Your task to perform on an android device: turn on showing notifications on the lock screen Image 0: 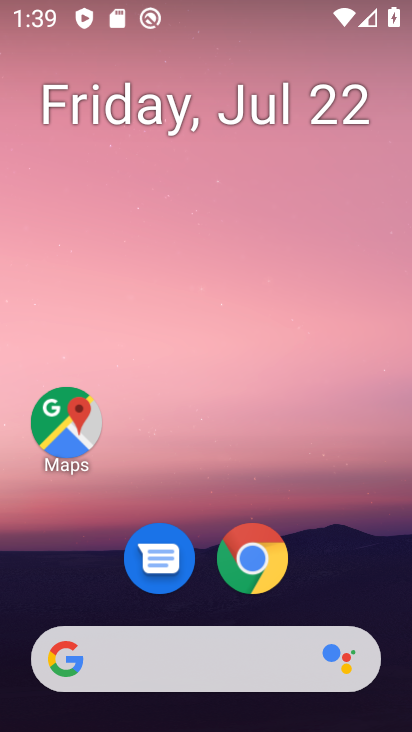
Step 0: drag from (379, 568) to (267, 148)
Your task to perform on an android device: turn on showing notifications on the lock screen Image 1: 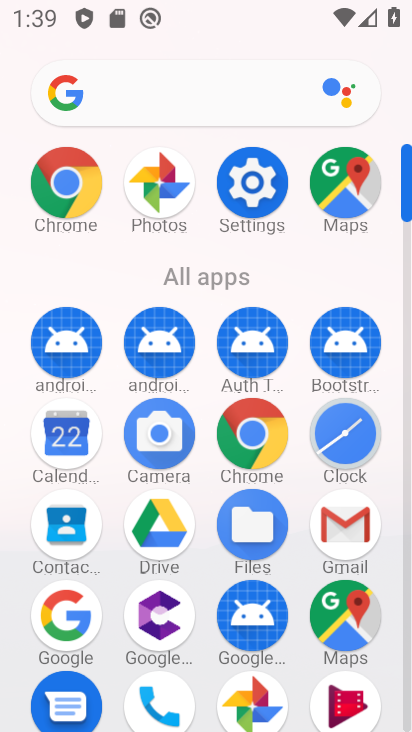
Step 1: click (263, 175)
Your task to perform on an android device: turn on showing notifications on the lock screen Image 2: 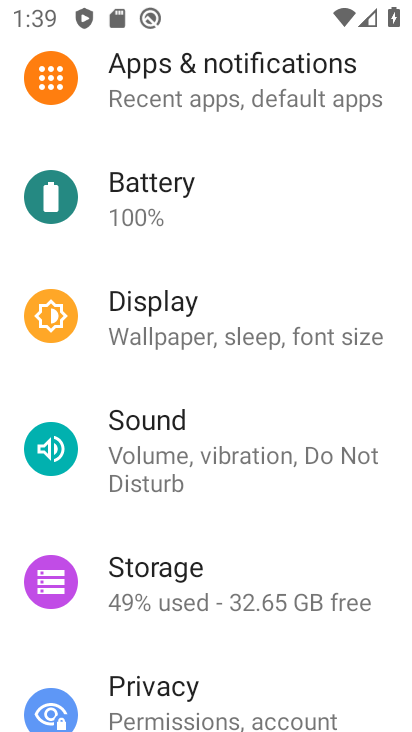
Step 2: click (227, 95)
Your task to perform on an android device: turn on showing notifications on the lock screen Image 3: 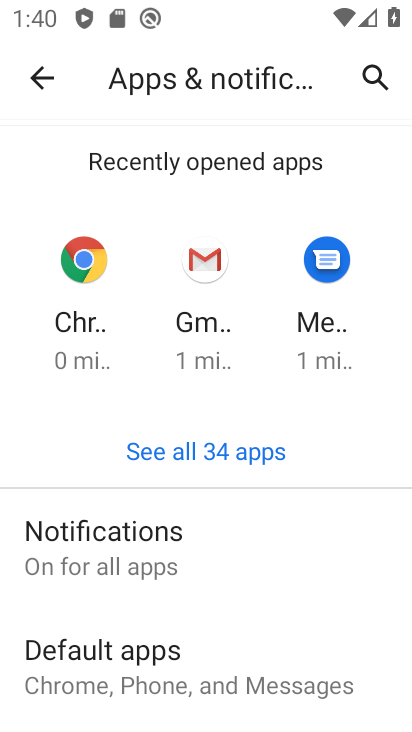
Step 3: click (234, 536)
Your task to perform on an android device: turn on showing notifications on the lock screen Image 4: 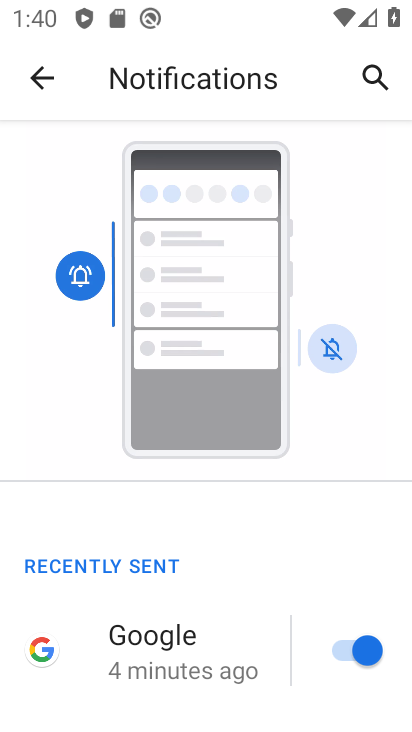
Step 4: drag from (233, 664) to (164, 280)
Your task to perform on an android device: turn on showing notifications on the lock screen Image 5: 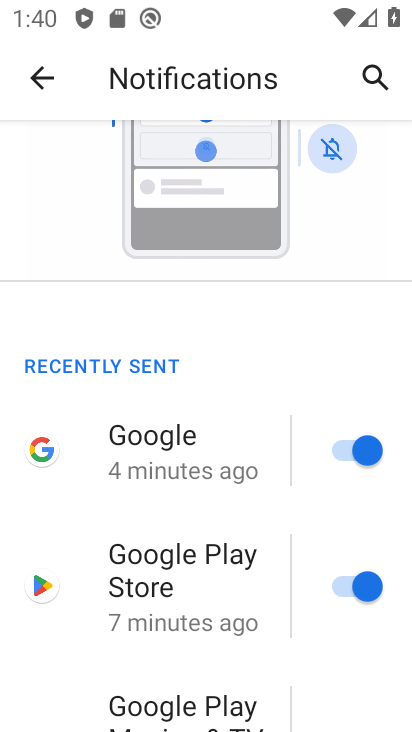
Step 5: drag from (252, 677) to (176, 231)
Your task to perform on an android device: turn on showing notifications on the lock screen Image 6: 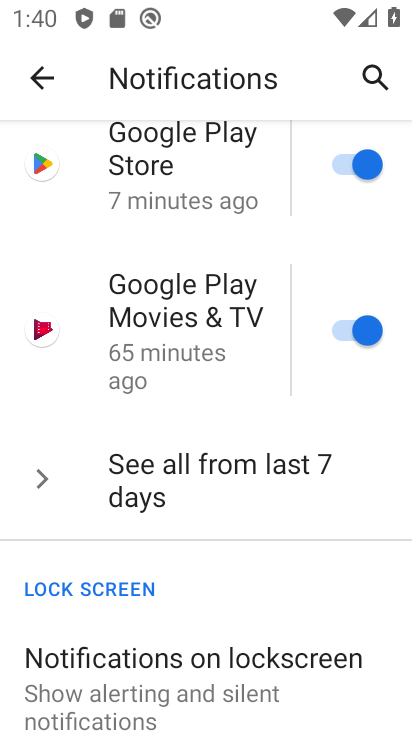
Step 6: drag from (248, 553) to (146, 112)
Your task to perform on an android device: turn on showing notifications on the lock screen Image 7: 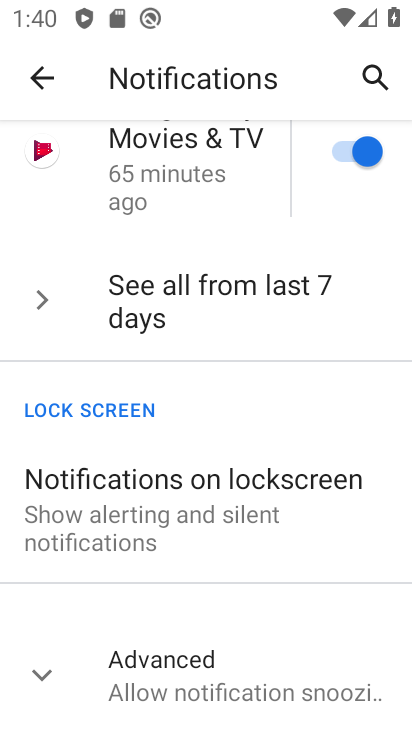
Step 7: click (241, 519)
Your task to perform on an android device: turn on showing notifications on the lock screen Image 8: 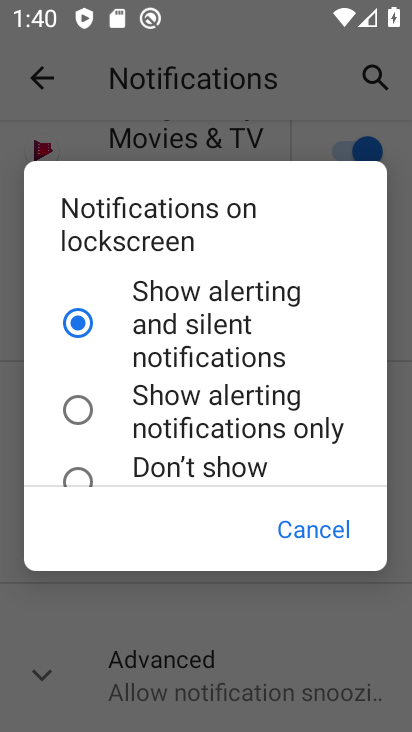
Step 8: task complete